Your task to perform on an android device: Go to sound settings Image 0: 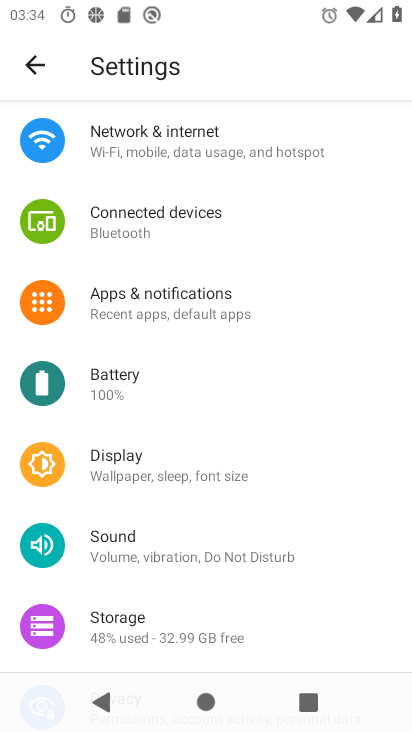
Step 0: click (103, 560)
Your task to perform on an android device: Go to sound settings Image 1: 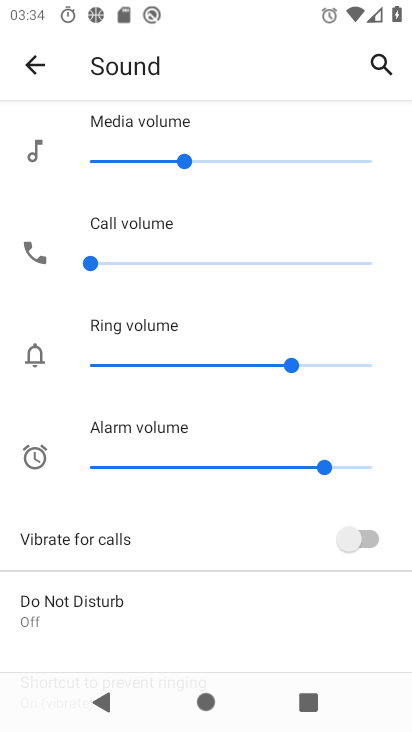
Step 1: task complete